Your task to perform on an android device: Search for "alienware area 51" on ebay, select the first entry, and add it to the cart. Image 0: 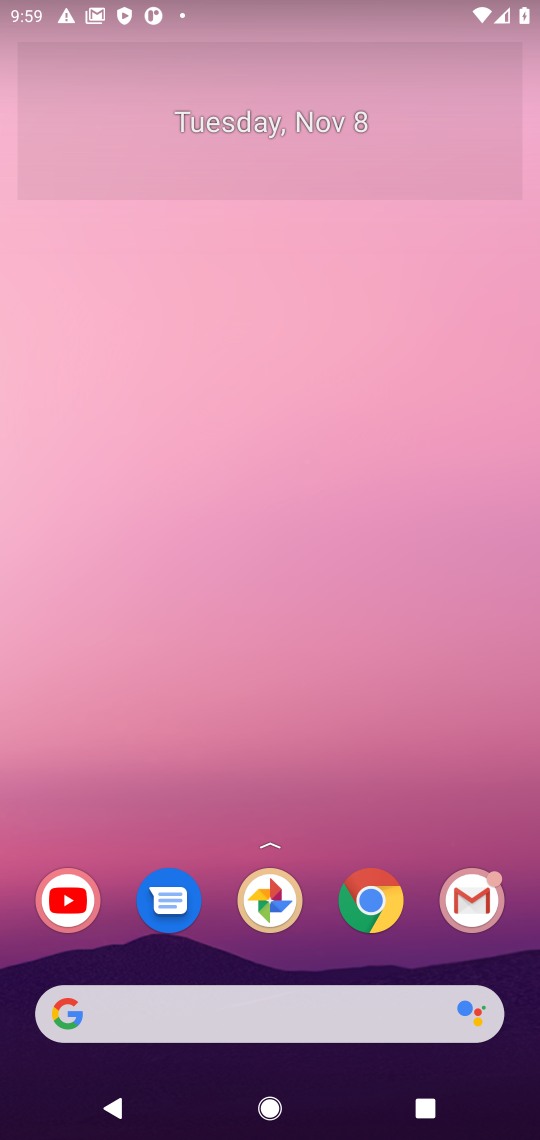
Step 0: click (383, 915)
Your task to perform on an android device: Search for "alienware area 51" on ebay, select the first entry, and add it to the cart. Image 1: 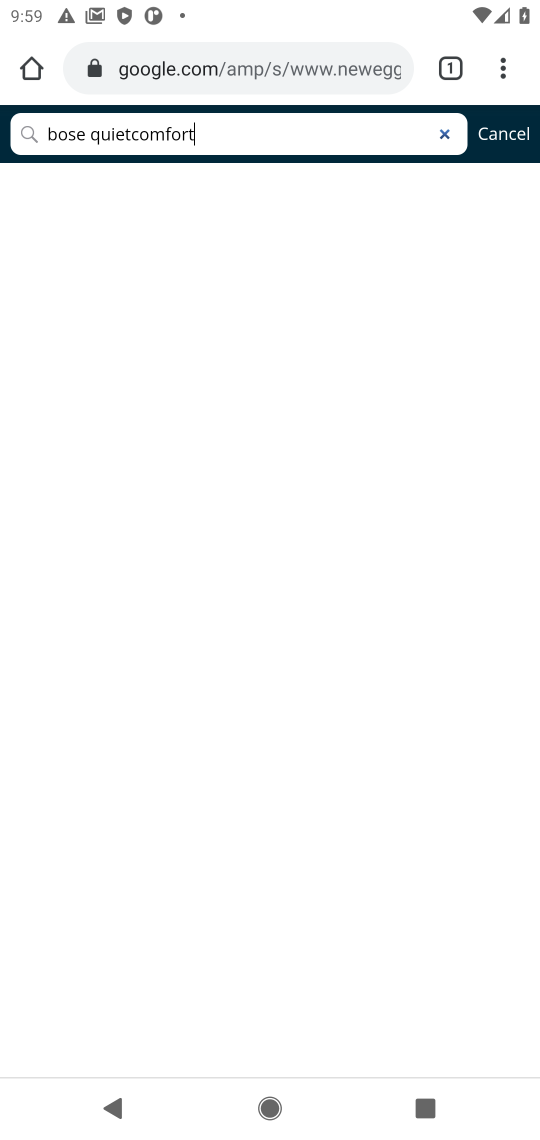
Step 1: click (243, 63)
Your task to perform on an android device: Search for "alienware area 51" on ebay, select the first entry, and add it to the cart. Image 2: 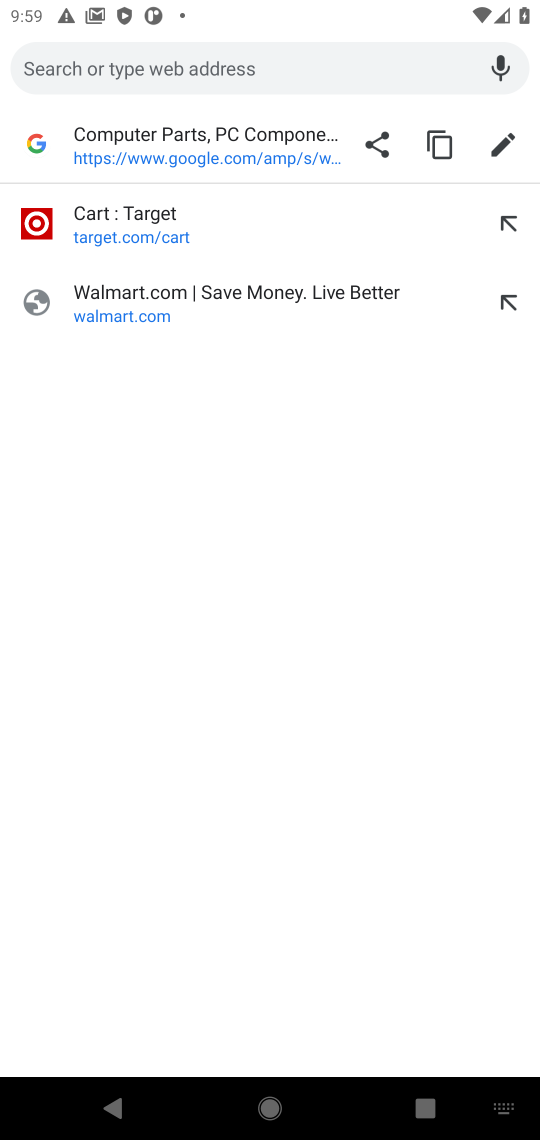
Step 2: type "ebay"
Your task to perform on an android device: Search for "alienware area 51" on ebay, select the first entry, and add it to the cart. Image 3: 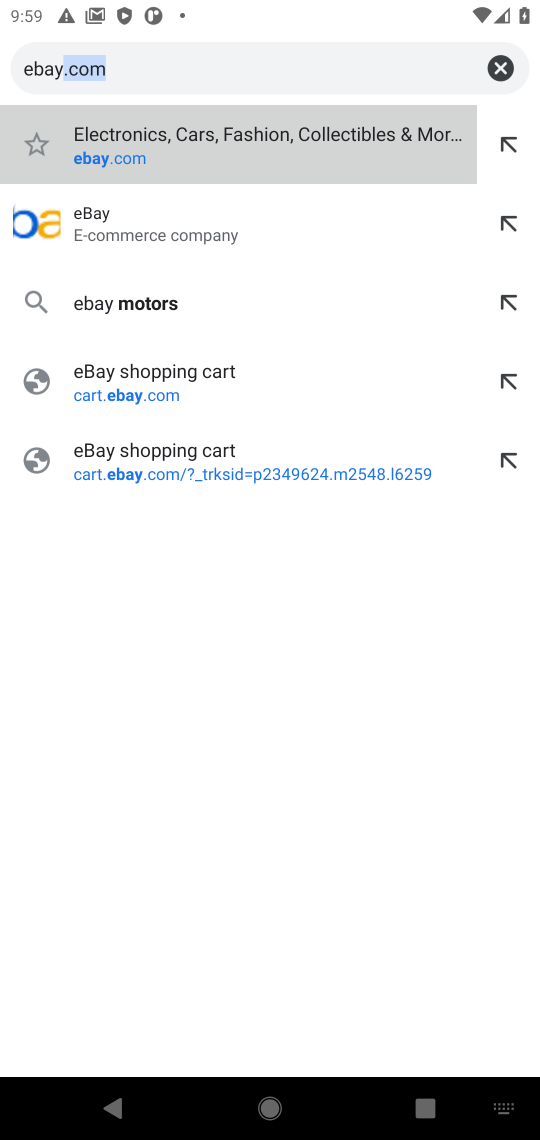
Step 3: type ""
Your task to perform on an android device: Search for "alienware area 51" on ebay, select the first entry, and add it to the cart. Image 4: 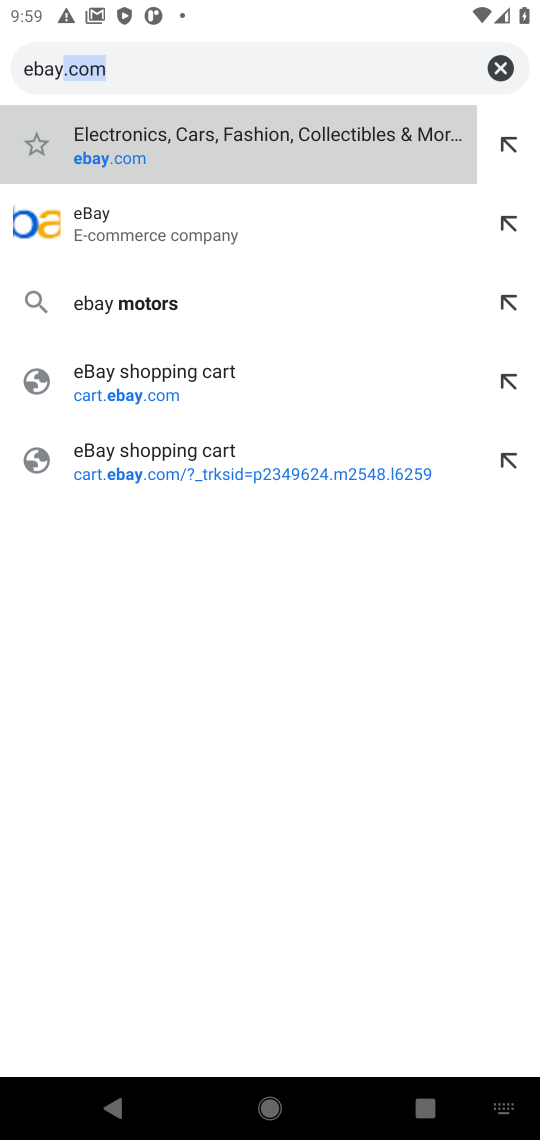
Step 4: click (88, 213)
Your task to perform on an android device: Search for "alienware area 51" on ebay, select the first entry, and add it to the cart. Image 5: 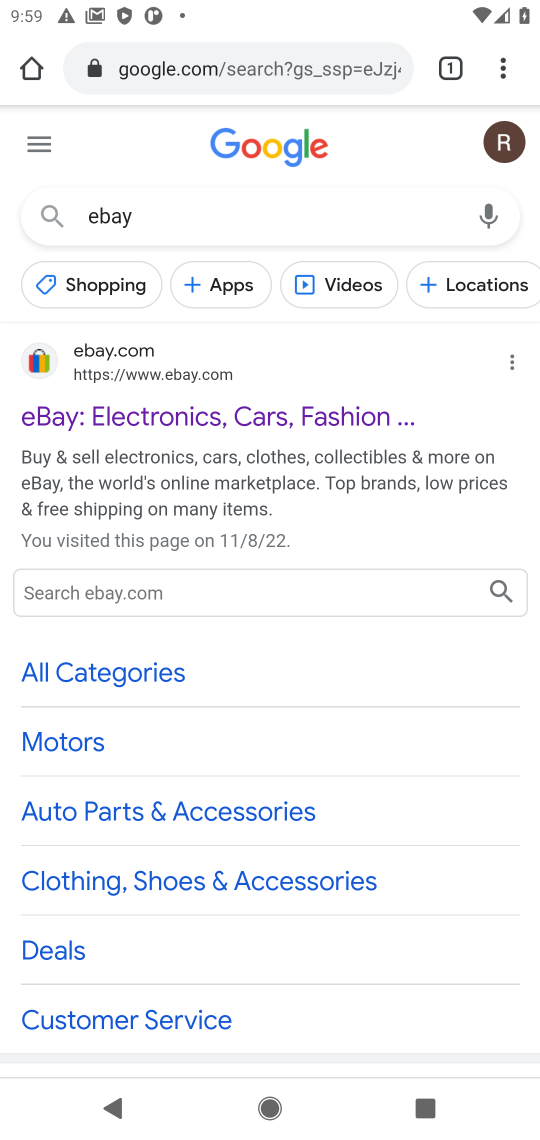
Step 5: click (186, 423)
Your task to perform on an android device: Search for "alienware area 51" on ebay, select the first entry, and add it to the cart. Image 6: 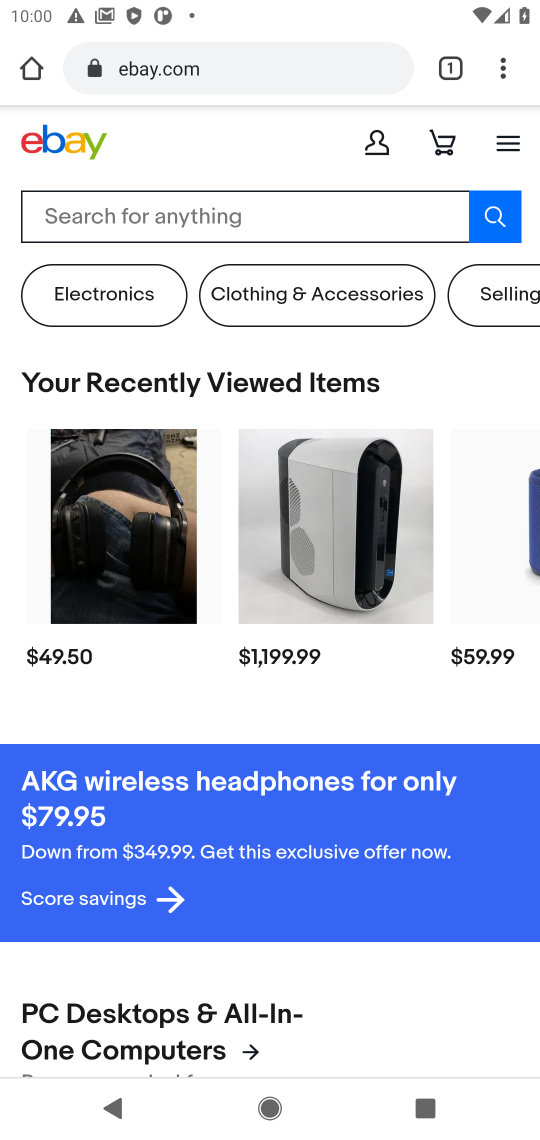
Step 6: click (114, 218)
Your task to perform on an android device: Search for "alienware area 51" on ebay, select the first entry, and add it to the cart. Image 7: 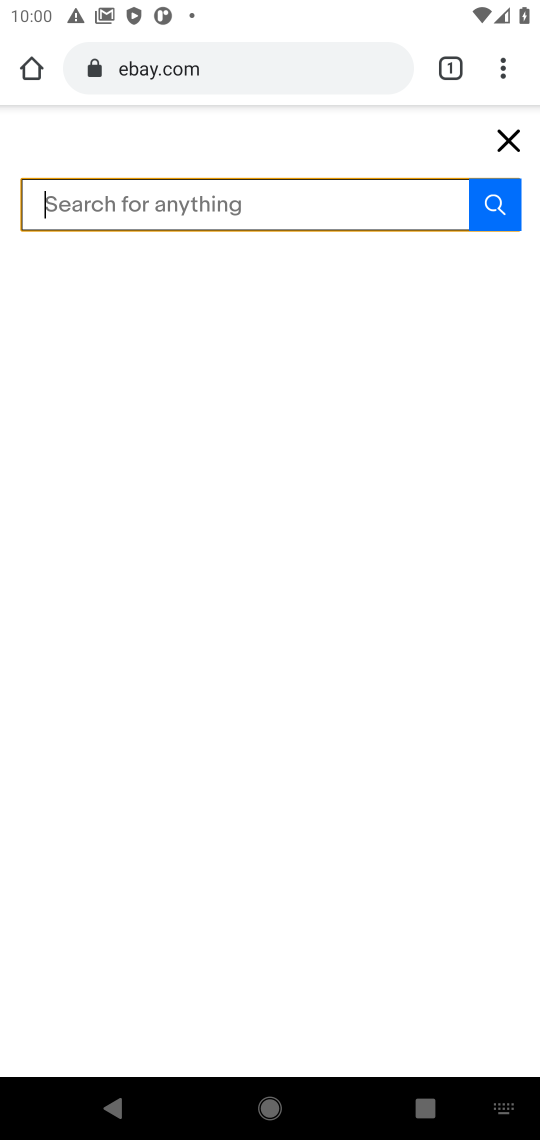
Step 7: type "alienware area 51"
Your task to perform on an android device: Search for "alienware area 51" on ebay, select the first entry, and add it to the cart. Image 8: 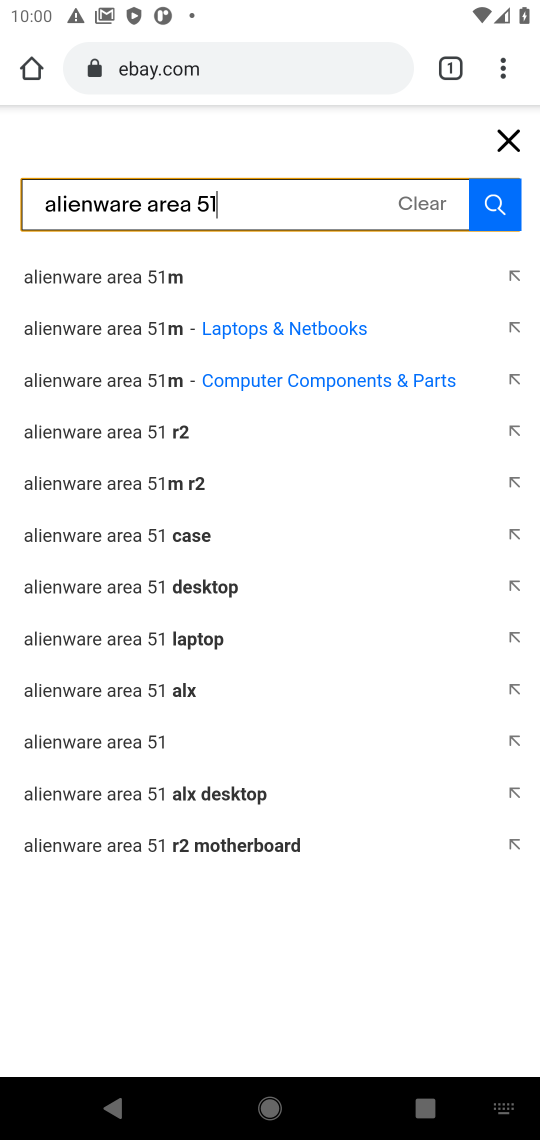
Step 8: type ""
Your task to perform on an android device: Search for "alienware area 51" on ebay, select the first entry, and add it to the cart. Image 9: 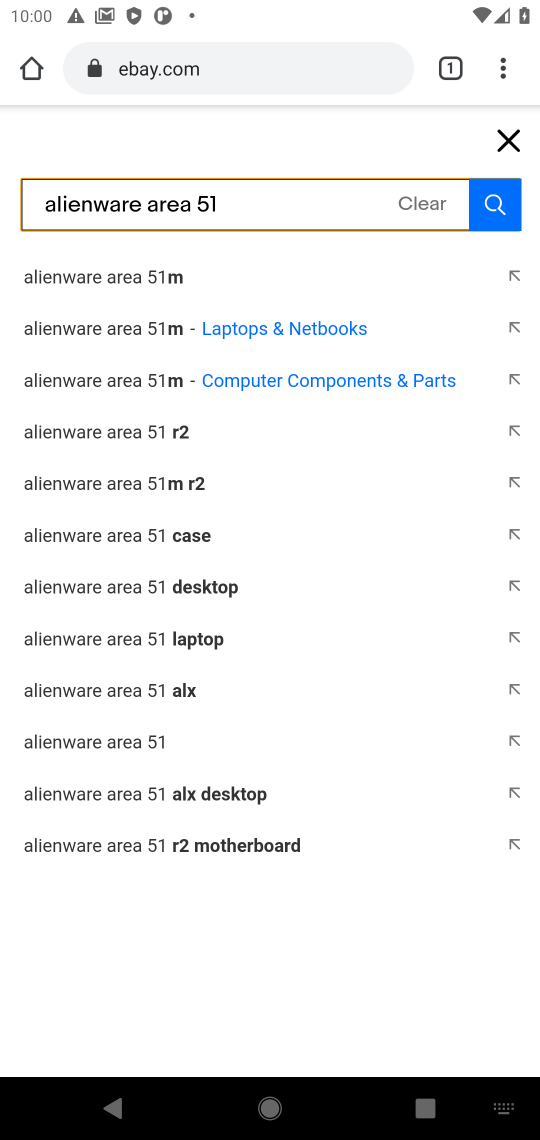
Step 9: click (134, 282)
Your task to perform on an android device: Search for "alienware area 51" on ebay, select the first entry, and add it to the cart. Image 10: 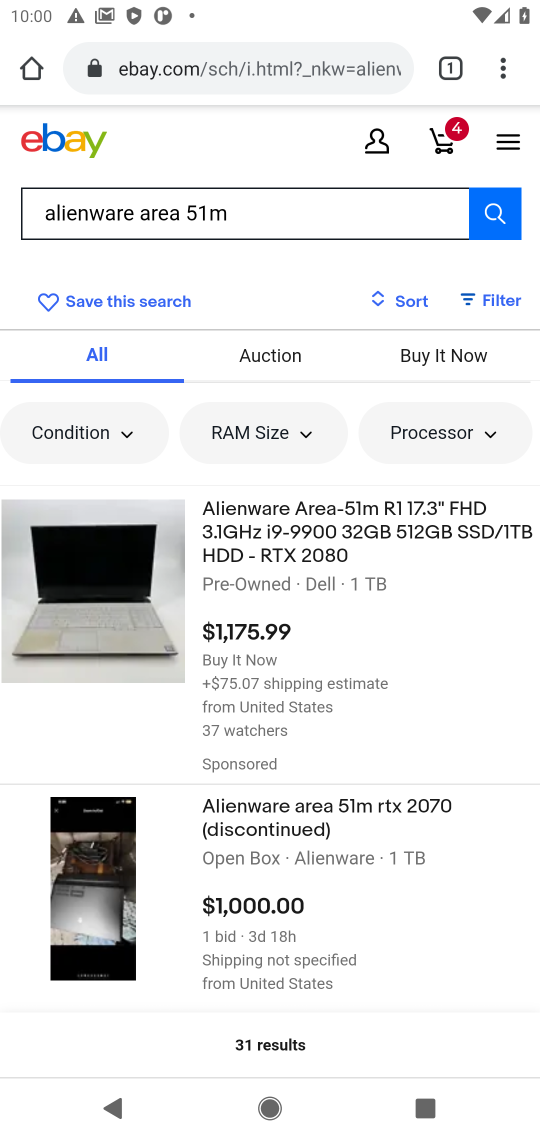
Step 10: click (282, 524)
Your task to perform on an android device: Search for "alienware area 51" on ebay, select the first entry, and add it to the cart. Image 11: 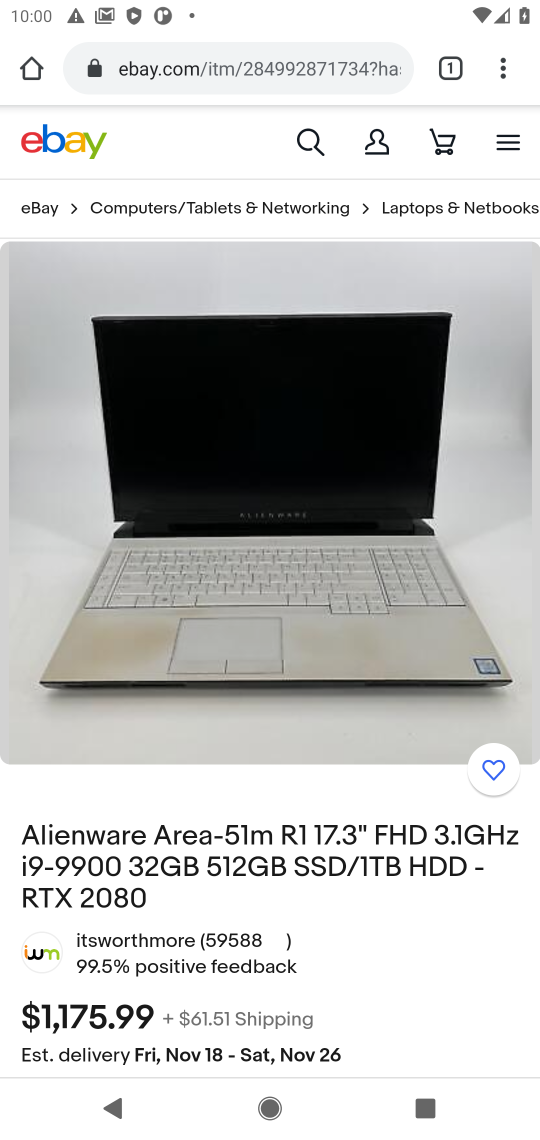
Step 11: drag from (231, 912) to (309, 233)
Your task to perform on an android device: Search for "alienware area 51" on ebay, select the first entry, and add it to the cart. Image 12: 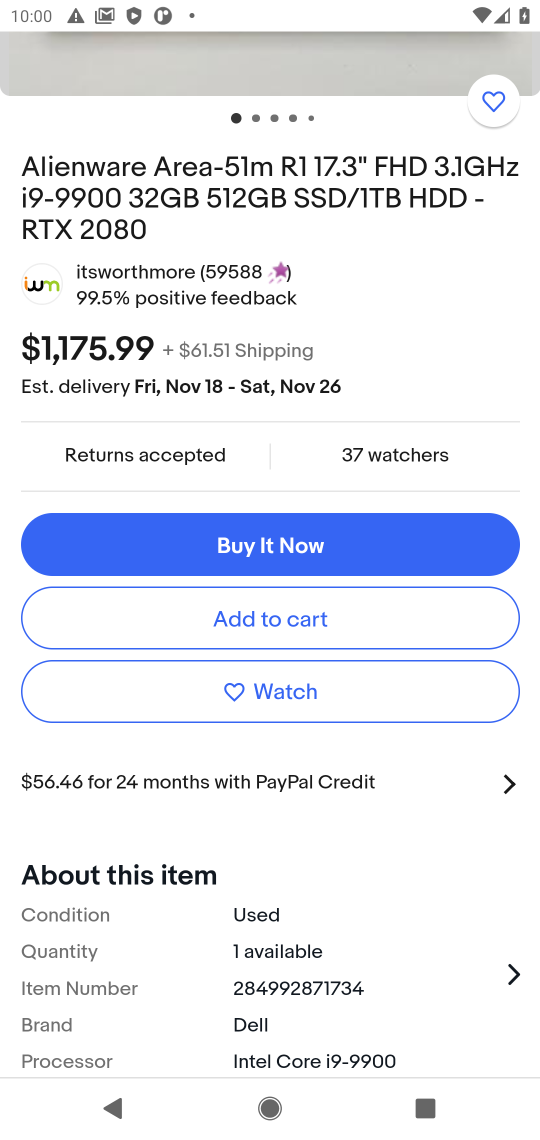
Step 12: click (252, 614)
Your task to perform on an android device: Search for "alienware area 51" on ebay, select the first entry, and add it to the cart. Image 13: 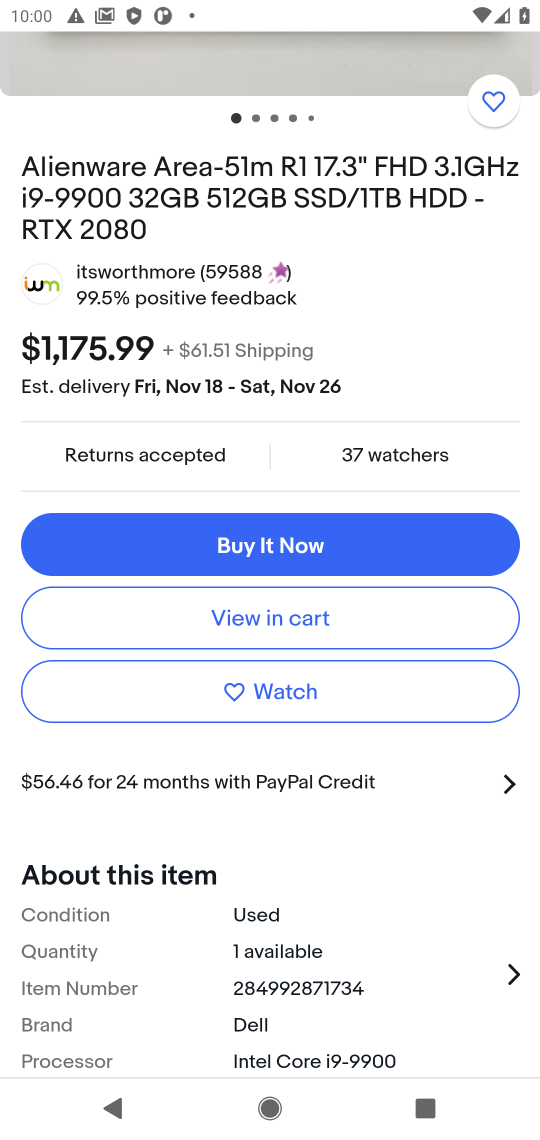
Step 13: click (254, 614)
Your task to perform on an android device: Search for "alienware area 51" on ebay, select the first entry, and add it to the cart. Image 14: 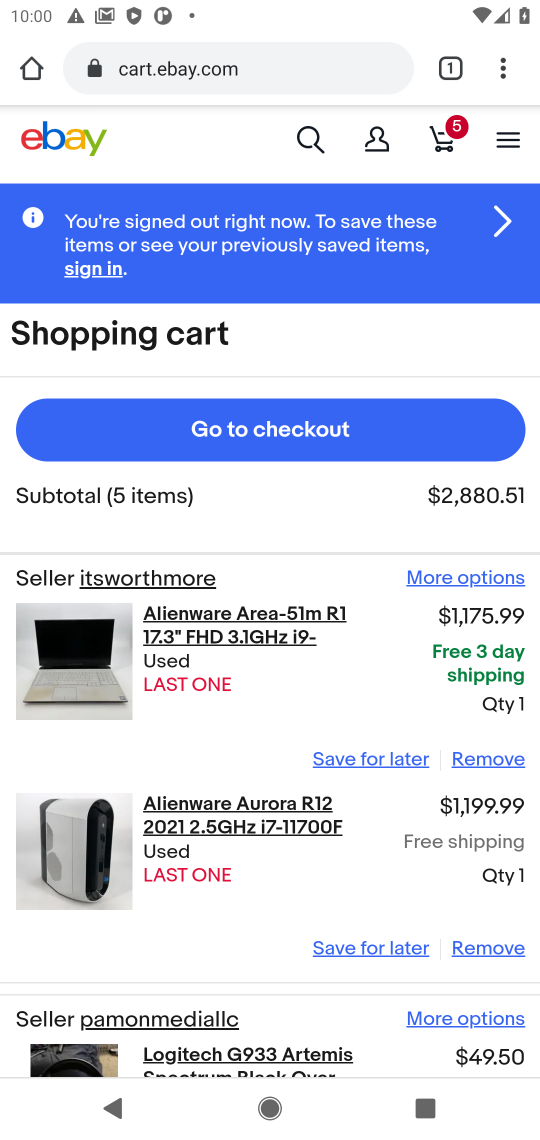
Step 14: task complete